Your task to perform on an android device: visit the assistant section in the google photos Image 0: 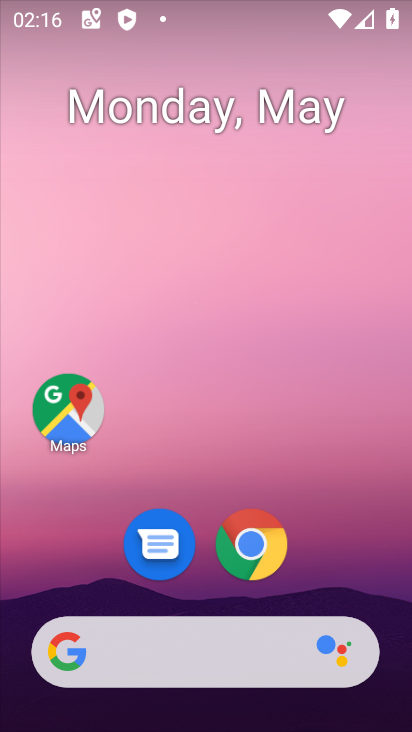
Step 0: drag from (388, 599) to (375, 354)
Your task to perform on an android device: visit the assistant section in the google photos Image 1: 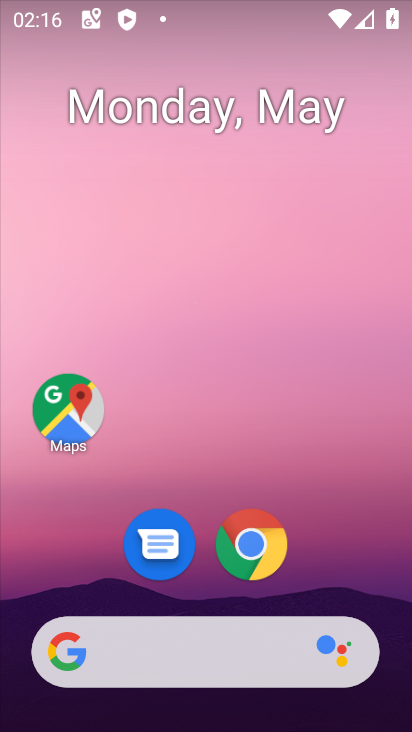
Step 1: drag from (375, 587) to (378, 249)
Your task to perform on an android device: visit the assistant section in the google photos Image 2: 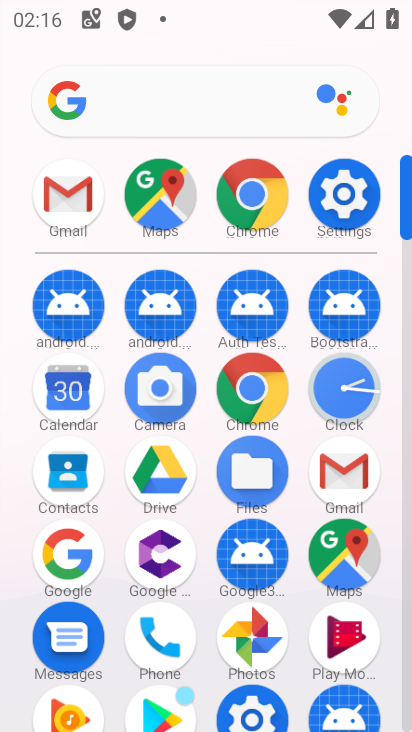
Step 2: click (263, 654)
Your task to perform on an android device: visit the assistant section in the google photos Image 3: 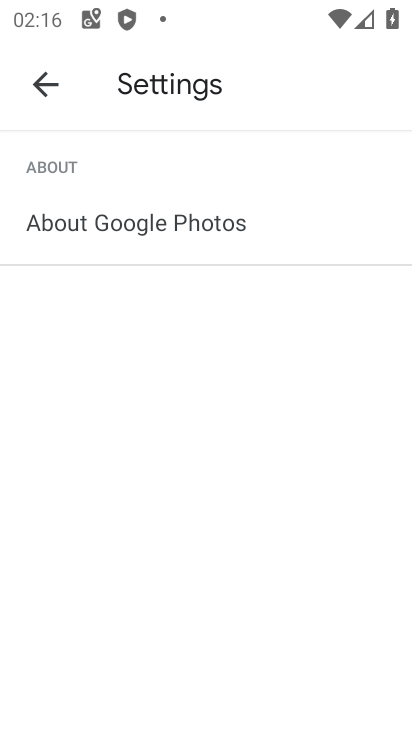
Step 3: click (41, 100)
Your task to perform on an android device: visit the assistant section in the google photos Image 4: 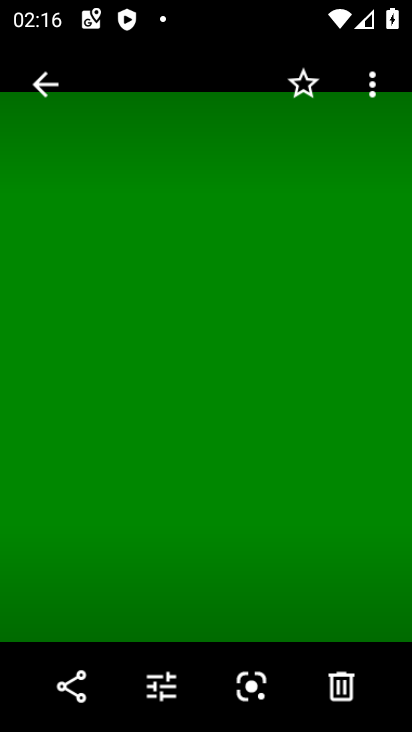
Step 4: click (40, 93)
Your task to perform on an android device: visit the assistant section in the google photos Image 5: 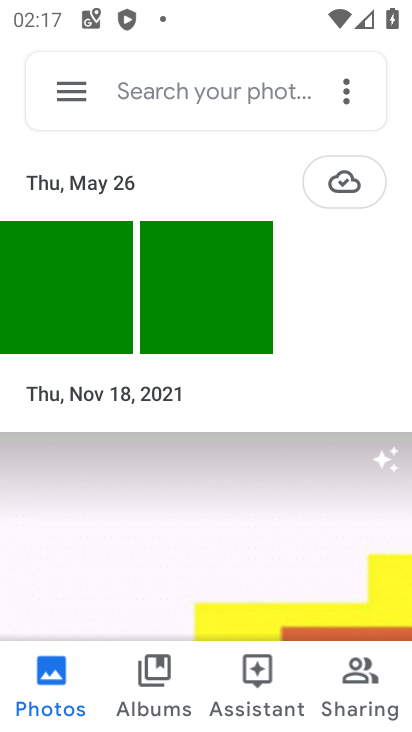
Step 5: click (252, 691)
Your task to perform on an android device: visit the assistant section in the google photos Image 6: 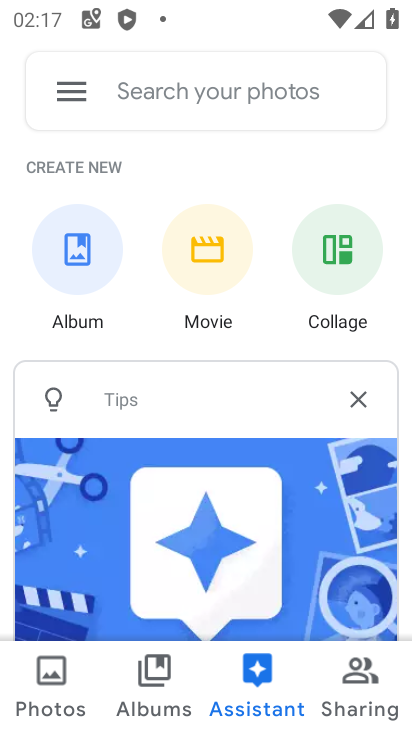
Step 6: task complete